Your task to perform on an android device: open app "Pandora - Music & Podcasts" Image 0: 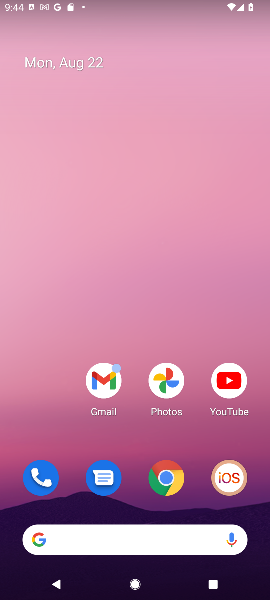
Step 0: drag from (138, 517) to (138, 78)
Your task to perform on an android device: open app "Pandora - Music & Podcasts" Image 1: 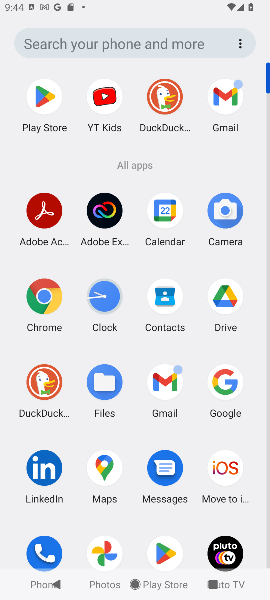
Step 1: click (47, 105)
Your task to perform on an android device: open app "Pandora - Music & Podcasts" Image 2: 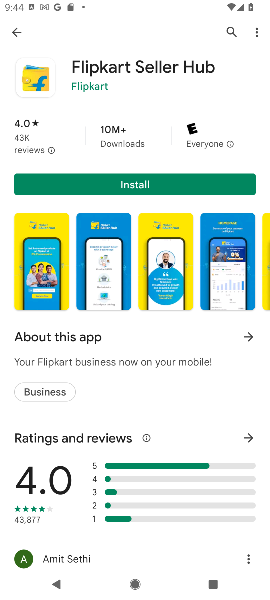
Step 2: click (233, 31)
Your task to perform on an android device: open app "Pandora - Music & Podcasts" Image 3: 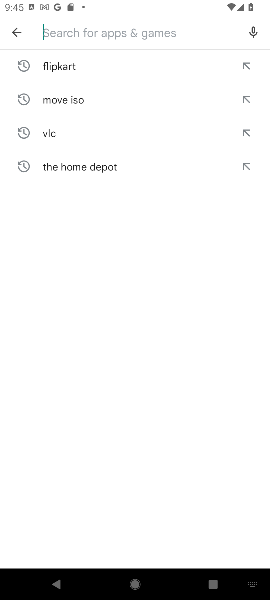
Step 3: click (256, 28)
Your task to perform on an android device: open app "Pandora - Music & Podcasts" Image 4: 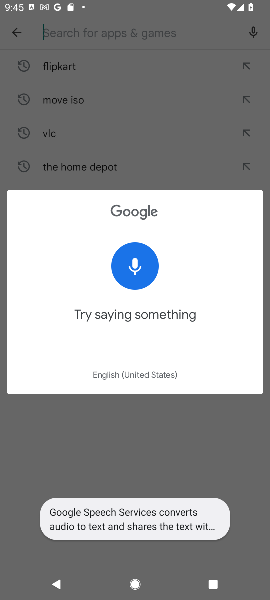
Step 4: click (144, 431)
Your task to perform on an android device: open app "Pandora - Music & Podcasts" Image 5: 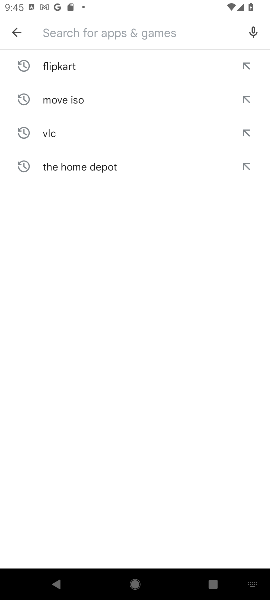
Step 5: type "pandora"
Your task to perform on an android device: open app "Pandora - Music & Podcasts" Image 6: 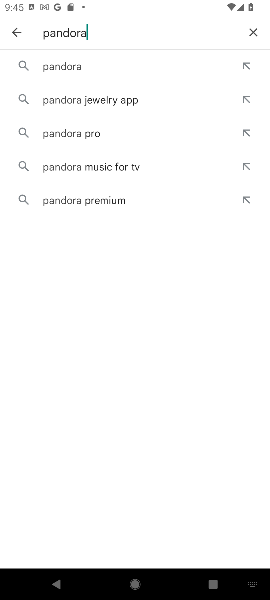
Step 6: click (94, 65)
Your task to perform on an android device: open app "Pandora - Music & Podcasts" Image 7: 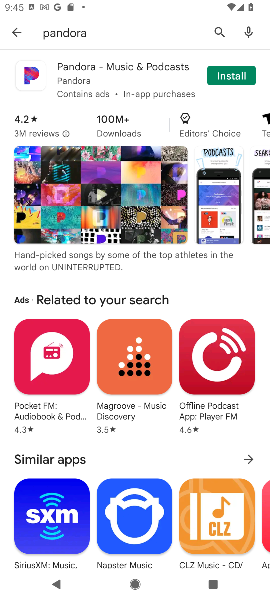
Step 7: click (238, 83)
Your task to perform on an android device: open app "Pandora - Music & Podcasts" Image 8: 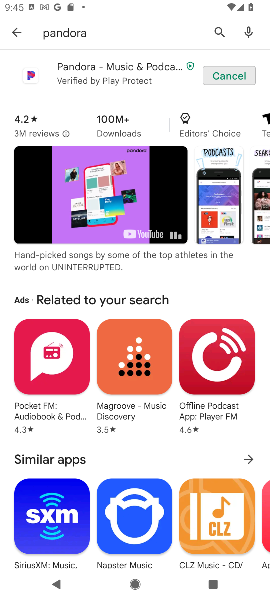
Step 8: task complete